Your task to perform on an android device: Go to Reddit.com Image 0: 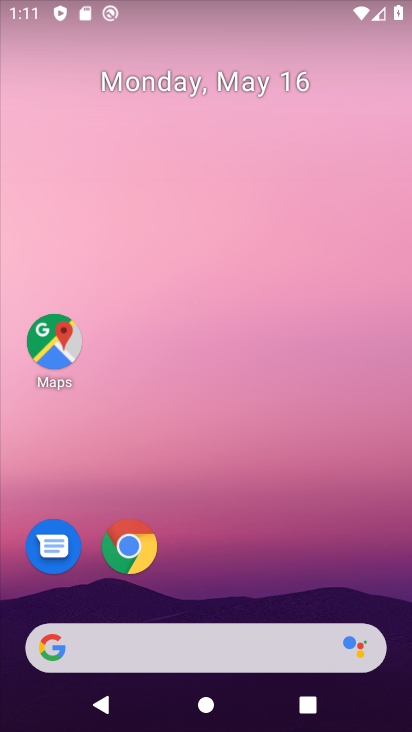
Step 0: click (126, 531)
Your task to perform on an android device: Go to Reddit.com Image 1: 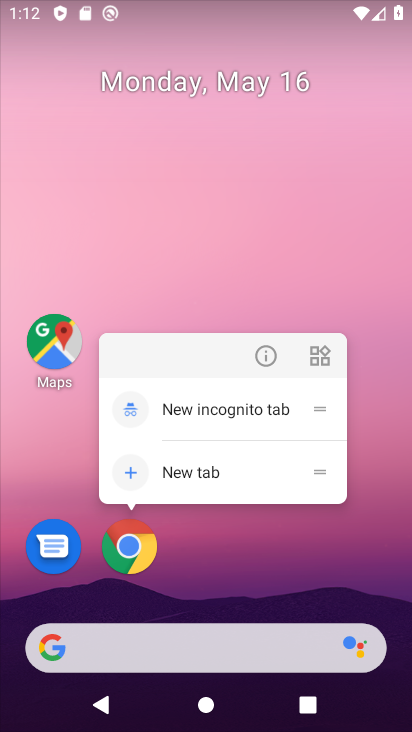
Step 1: click (134, 550)
Your task to perform on an android device: Go to Reddit.com Image 2: 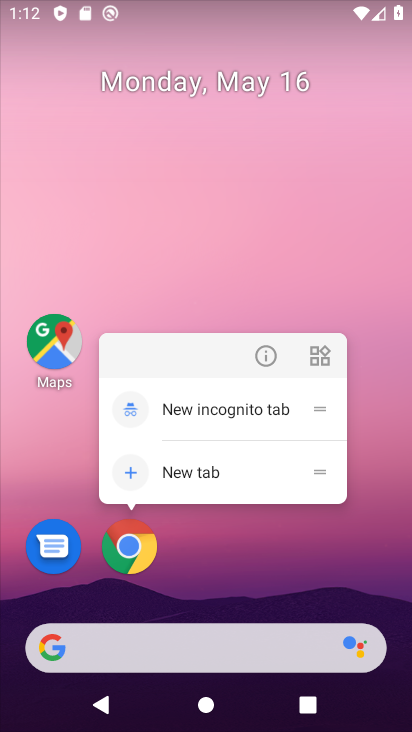
Step 2: click (271, 355)
Your task to perform on an android device: Go to Reddit.com Image 3: 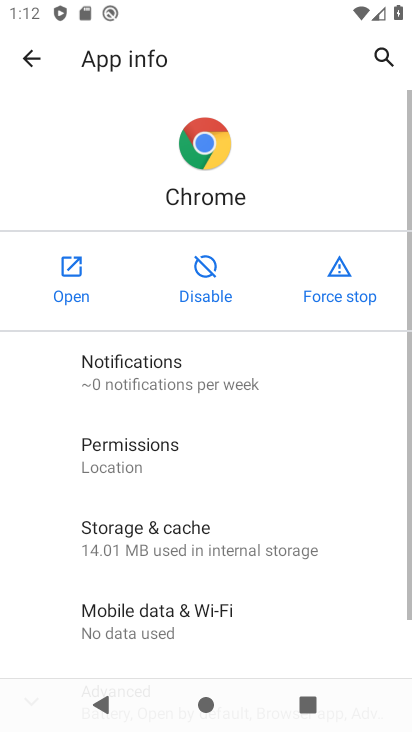
Step 3: click (79, 282)
Your task to perform on an android device: Go to Reddit.com Image 4: 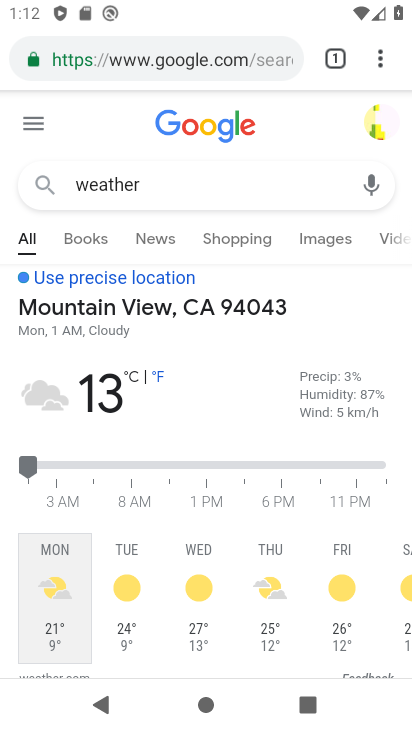
Step 4: type "Reddit.com"
Your task to perform on an android device: Go to Reddit.com Image 5: 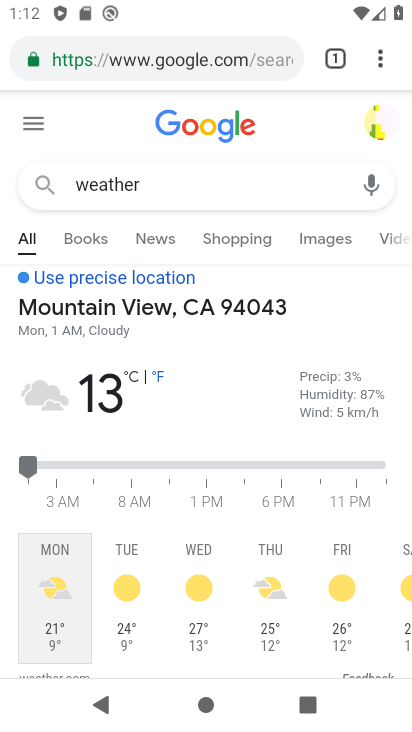
Step 5: click (108, 54)
Your task to perform on an android device: Go to Reddit.com Image 6: 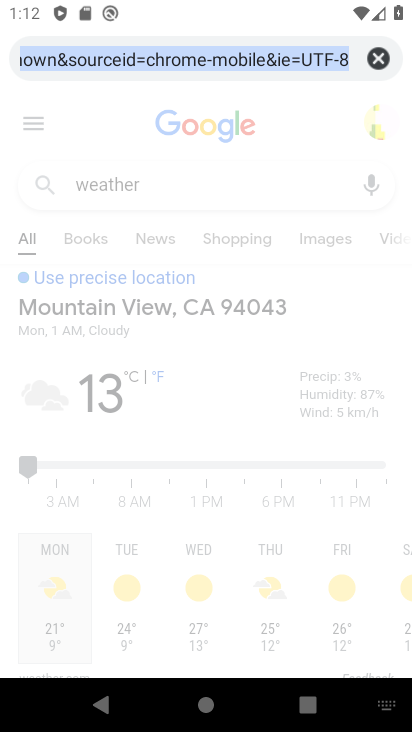
Step 6: type "Reddit.com"
Your task to perform on an android device: Go to Reddit.com Image 7: 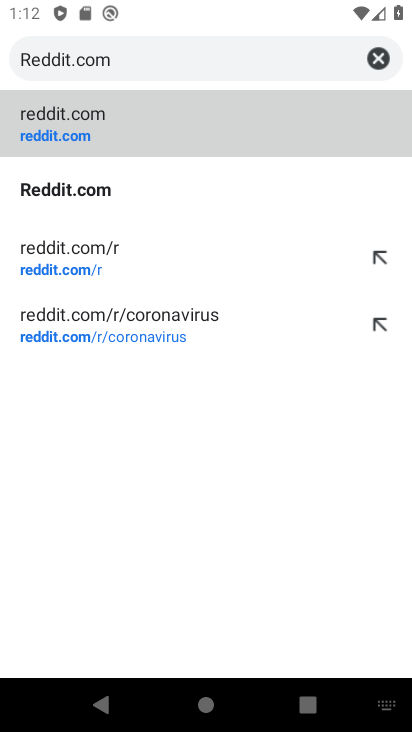
Step 7: click (150, 140)
Your task to perform on an android device: Go to Reddit.com Image 8: 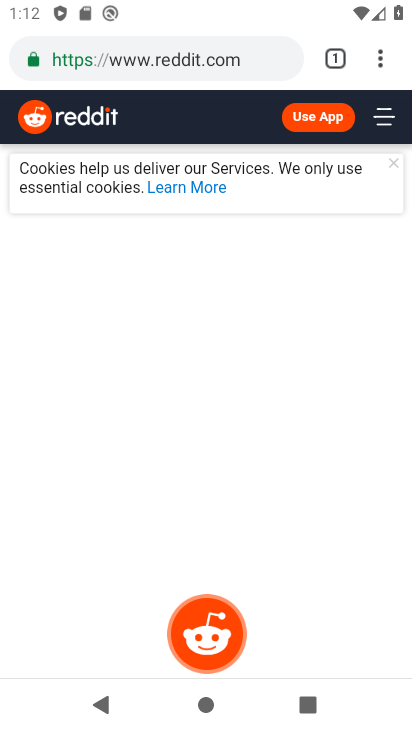
Step 8: task complete